Your task to perform on an android device: open app "Adobe Acrobat Reader" (install if not already installed) Image 0: 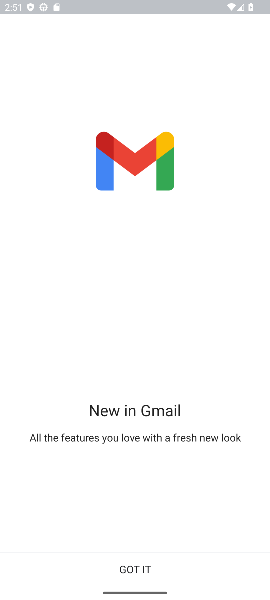
Step 0: click (198, 557)
Your task to perform on an android device: open app "Adobe Acrobat Reader" (install if not already installed) Image 1: 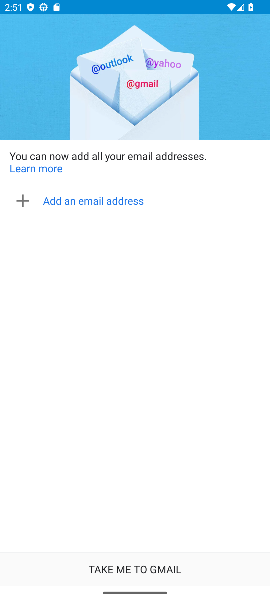
Step 1: press home button
Your task to perform on an android device: open app "Adobe Acrobat Reader" (install if not already installed) Image 2: 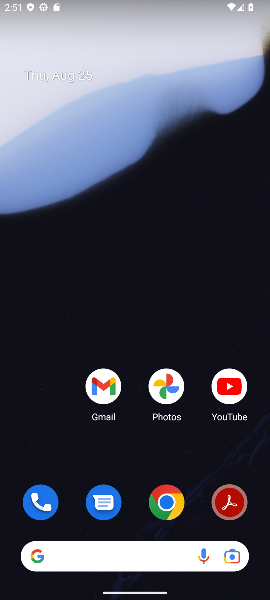
Step 2: drag from (139, 501) to (176, 43)
Your task to perform on an android device: open app "Adobe Acrobat Reader" (install if not already installed) Image 3: 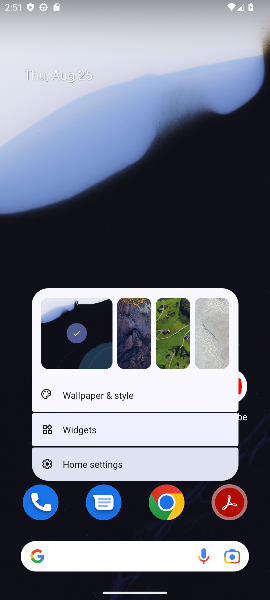
Step 3: click (227, 502)
Your task to perform on an android device: open app "Adobe Acrobat Reader" (install if not already installed) Image 4: 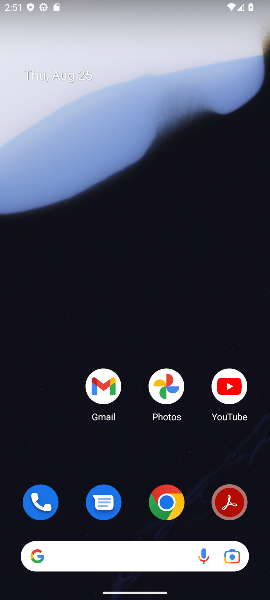
Step 4: click (227, 502)
Your task to perform on an android device: open app "Adobe Acrobat Reader" (install if not already installed) Image 5: 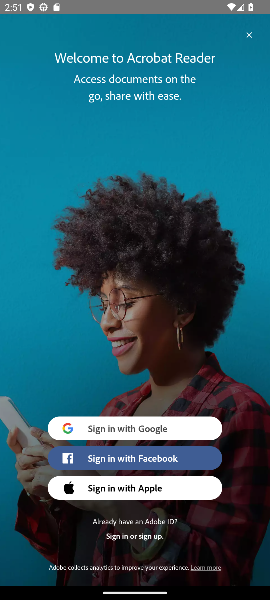
Step 5: task complete